Your task to perform on an android device: delete browsing data in the chrome app Image 0: 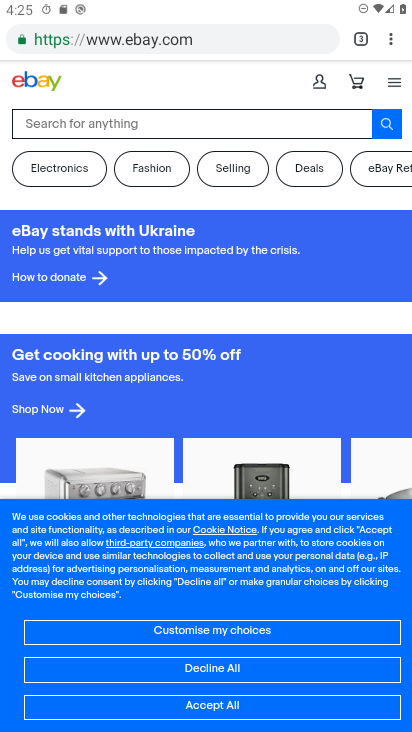
Step 0: click (388, 40)
Your task to perform on an android device: delete browsing data in the chrome app Image 1: 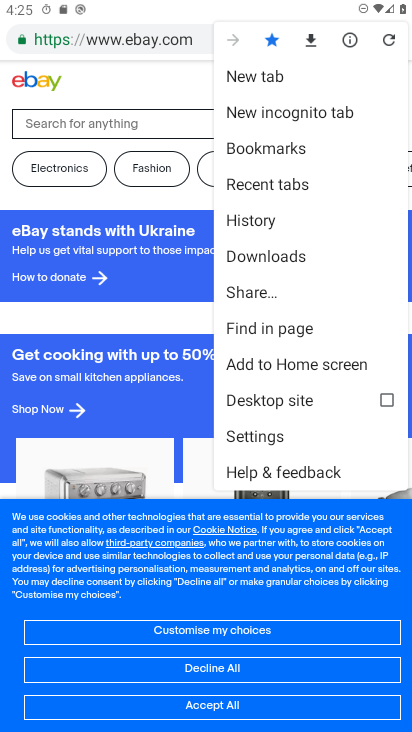
Step 1: click (264, 225)
Your task to perform on an android device: delete browsing data in the chrome app Image 2: 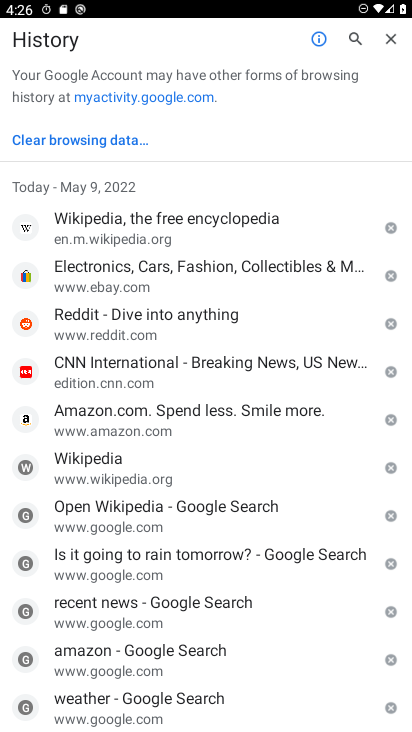
Step 2: click (67, 136)
Your task to perform on an android device: delete browsing data in the chrome app Image 3: 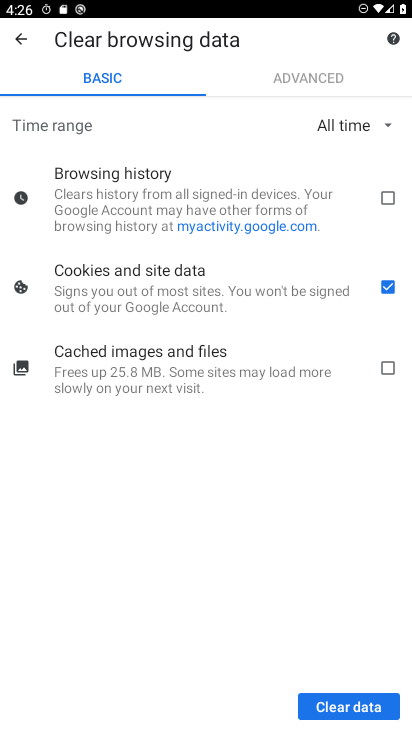
Step 3: click (322, 704)
Your task to perform on an android device: delete browsing data in the chrome app Image 4: 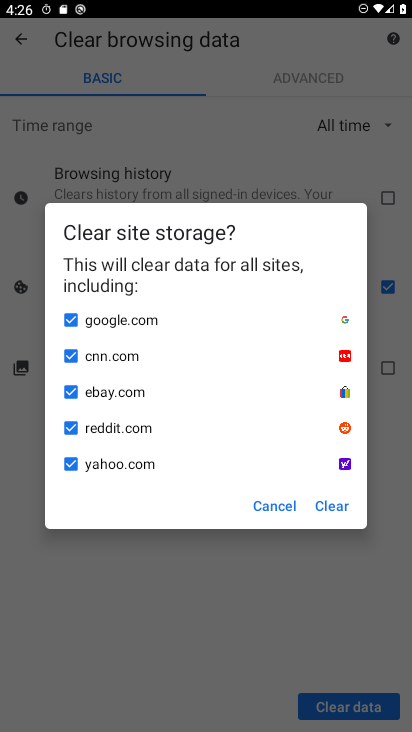
Step 4: click (340, 502)
Your task to perform on an android device: delete browsing data in the chrome app Image 5: 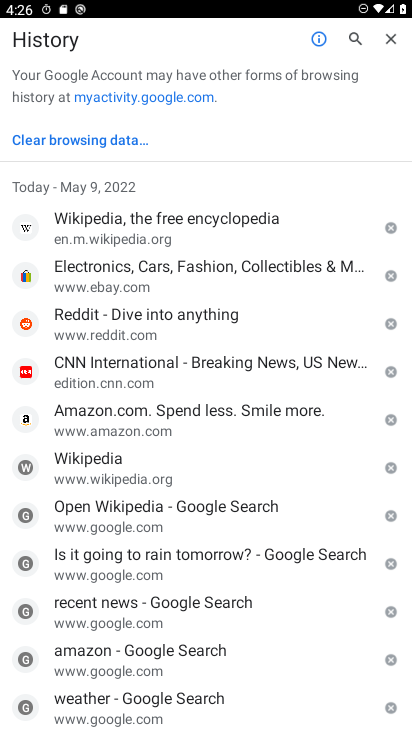
Step 5: click (97, 140)
Your task to perform on an android device: delete browsing data in the chrome app Image 6: 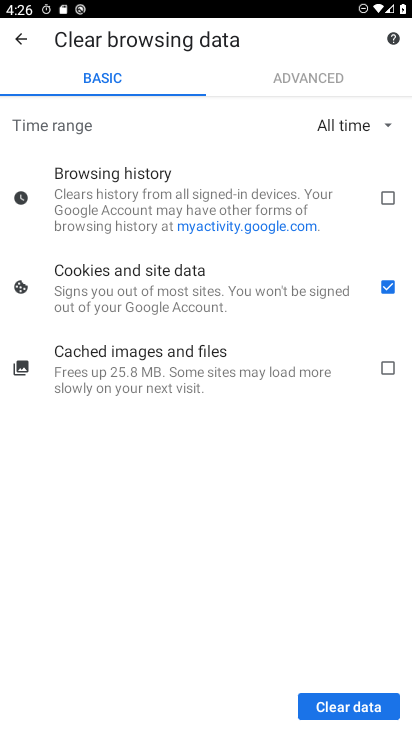
Step 6: click (386, 208)
Your task to perform on an android device: delete browsing data in the chrome app Image 7: 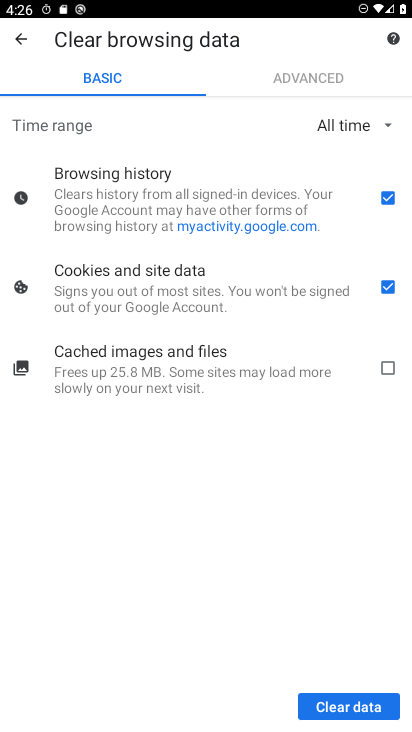
Step 7: click (382, 371)
Your task to perform on an android device: delete browsing data in the chrome app Image 8: 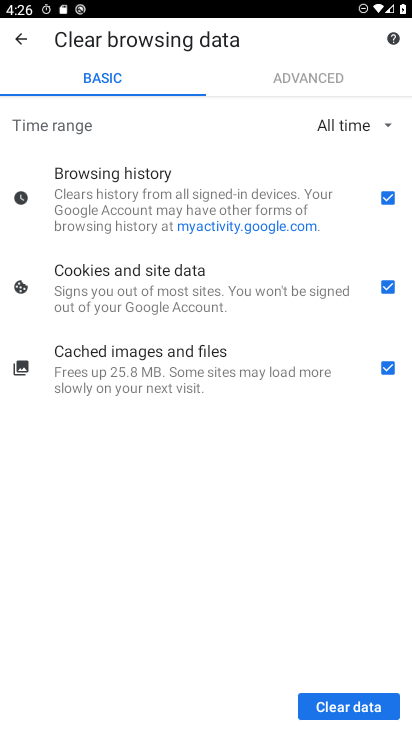
Step 8: click (354, 706)
Your task to perform on an android device: delete browsing data in the chrome app Image 9: 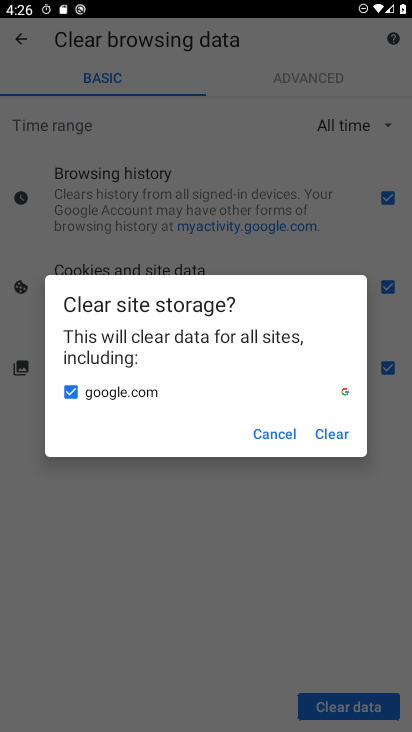
Step 9: click (342, 432)
Your task to perform on an android device: delete browsing data in the chrome app Image 10: 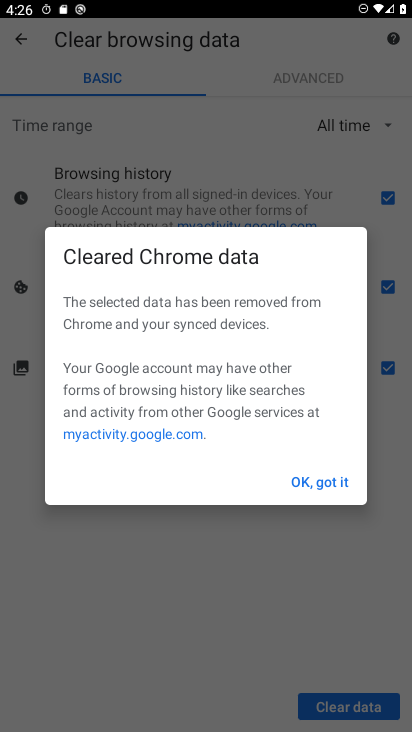
Step 10: task complete